Your task to perform on an android device: Go to Google Image 0: 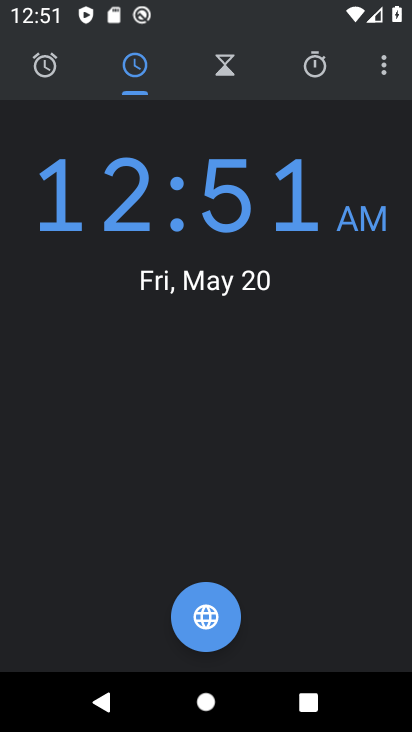
Step 0: press home button
Your task to perform on an android device: Go to Google Image 1: 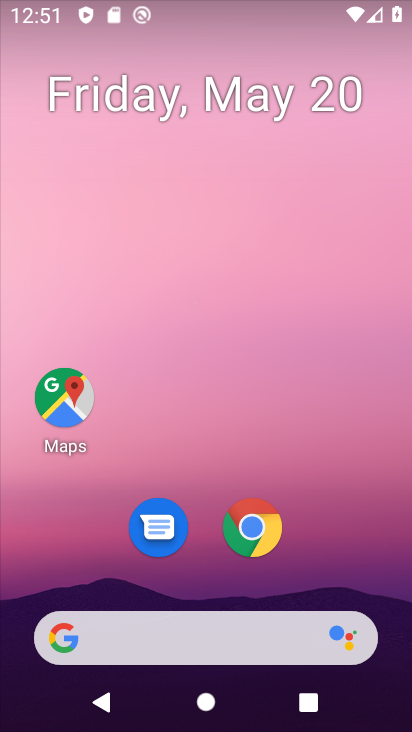
Step 1: drag from (209, 657) to (318, 281)
Your task to perform on an android device: Go to Google Image 2: 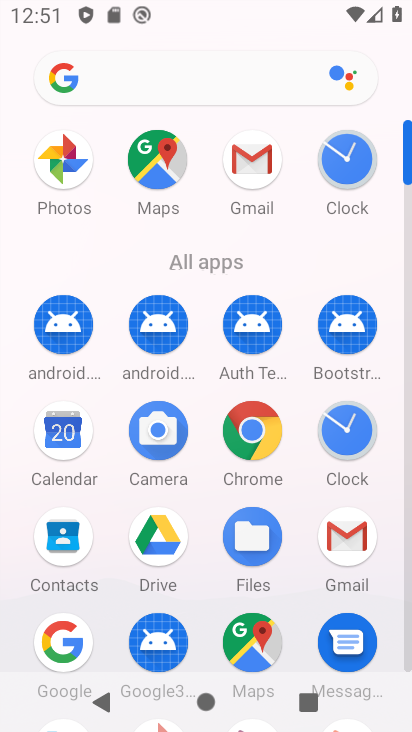
Step 2: drag from (133, 535) to (273, 211)
Your task to perform on an android device: Go to Google Image 3: 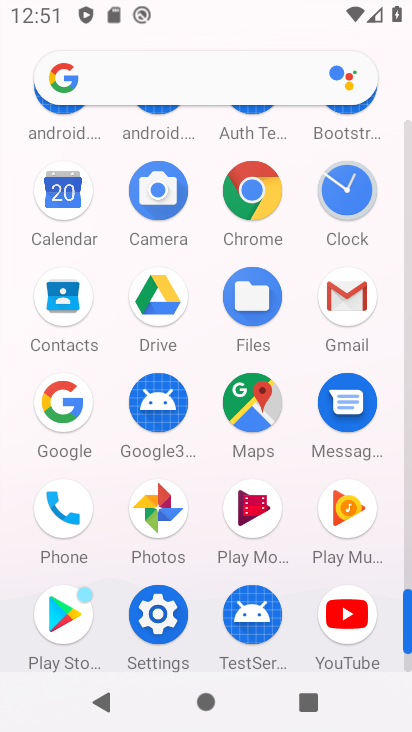
Step 3: click (70, 405)
Your task to perform on an android device: Go to Google Image 4: 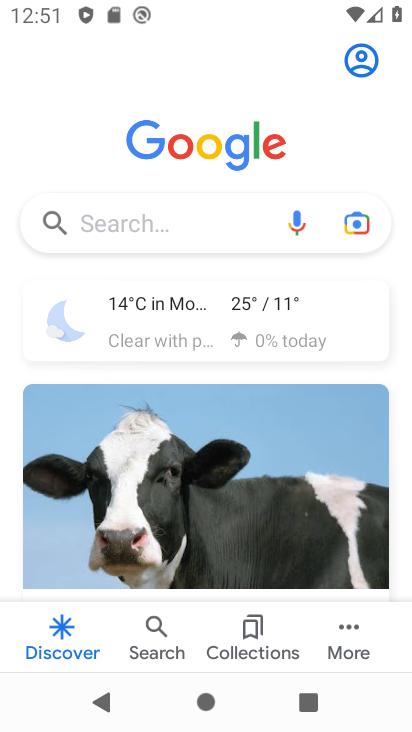
Step 4: task complete